Your task to perform on an android device: View the shopping cart on target.com. Search for "beats solo 3" on target.com, select the first entry, add it to the cart, then select checkout. Image 0: 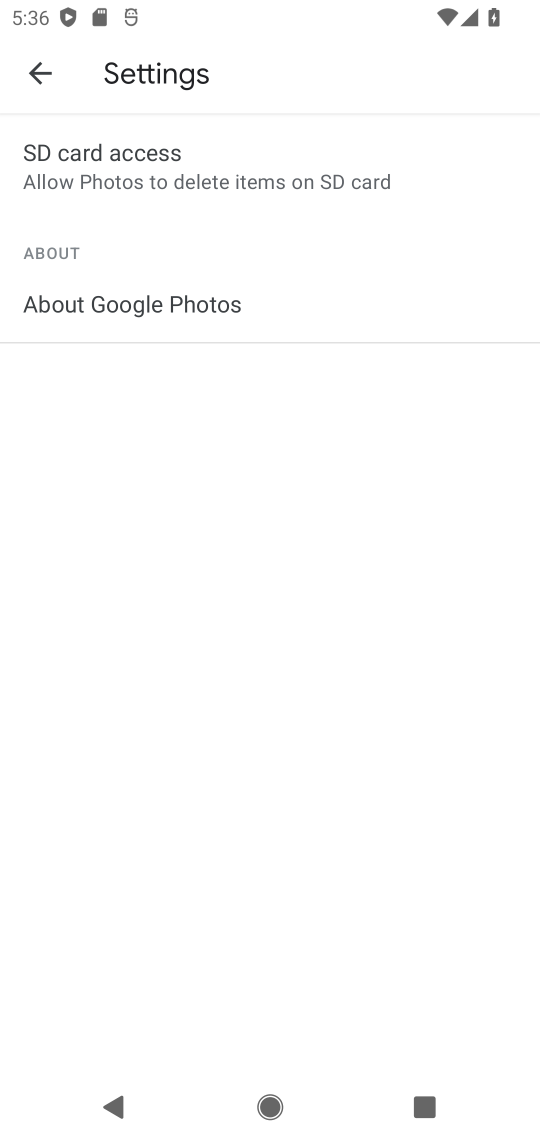
Step 0: press home button
Your task to perform on an android device: View the shopping cart on target.com. Search for "beats solo 3" on target.com, select the first entry, add it to the cart, then select checkout. Image 1: 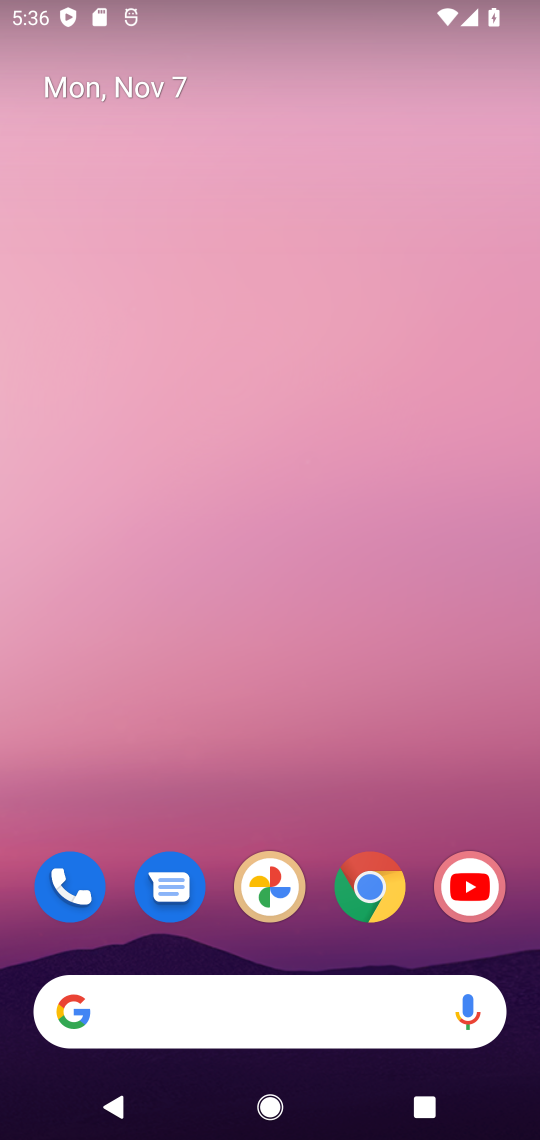
Step 1: click (381, 888)
Your task to perform on an android device: View the shopping cart on target.com. Search for "beats solo 3" on target.com, select the first entry, add it to the cart, then select checkout. Image 2: 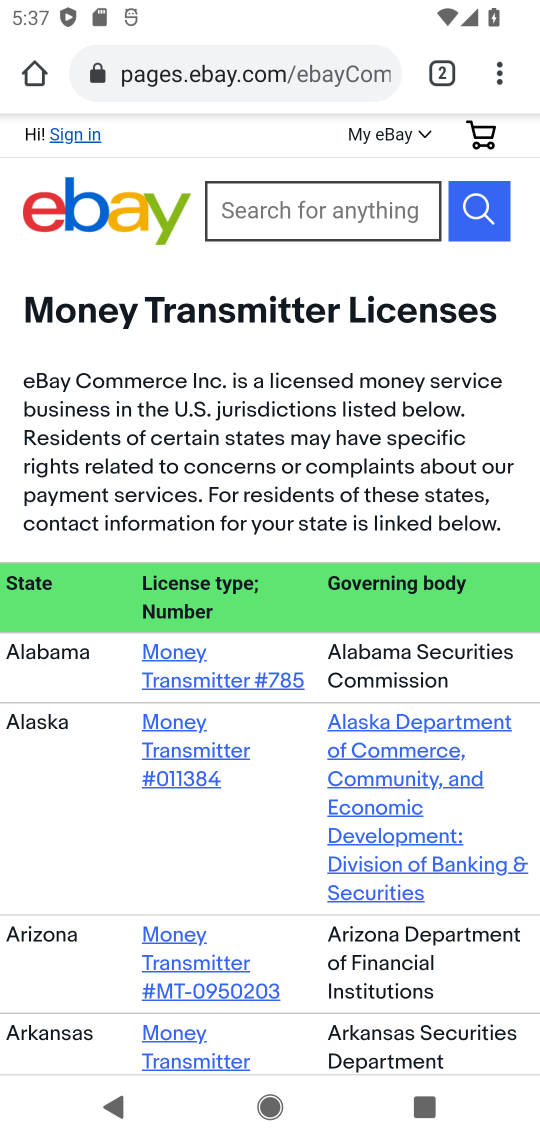
Step 2: click (444, 80)
Your task to perform on an android device: View the shopping cart on target.com. Search for "beats solo 3" on target.com, select the first entry, add it to the cart, then select checkout. Image 3: 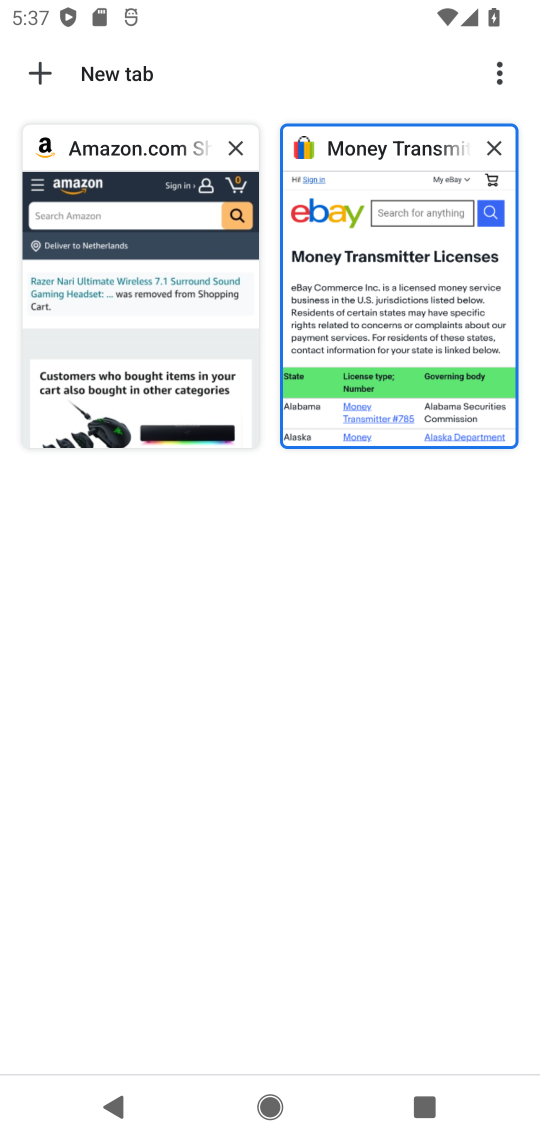
Step 3: click (41, 73)
Your task to perform on an android device: View the shopping cart on target.com. Search for "beats solo 3" on target.com, select the first entry, add it to the cart, then select checkout. Image 4: 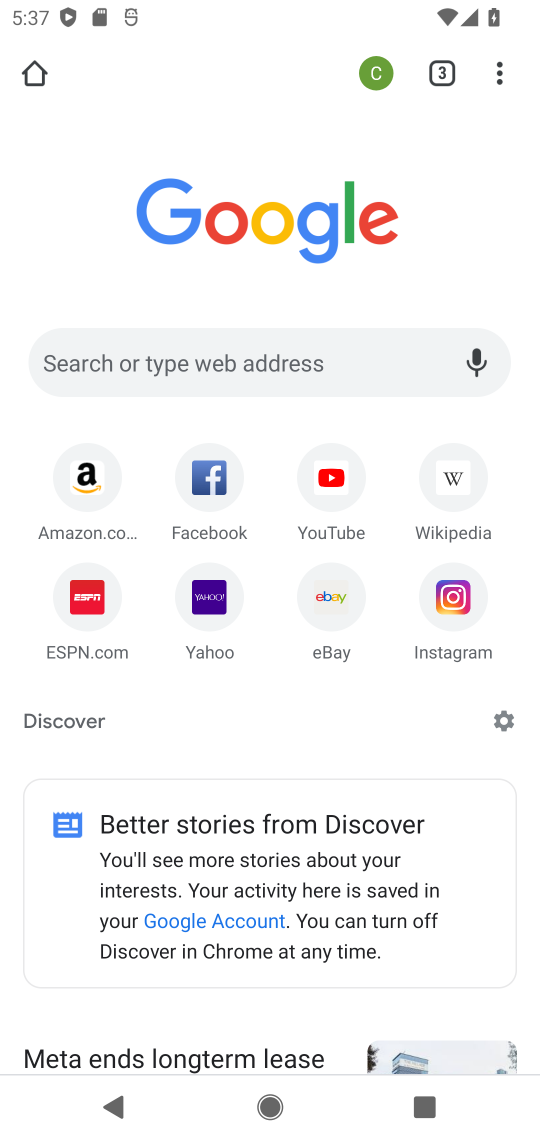
Step 4: click (252, 362)
Your task to perform on an android device: View the shopping cart on target.com. Search for "beats solo 3" on target.com, select the first entry, add it to the cart, then select checkout. Image 5: 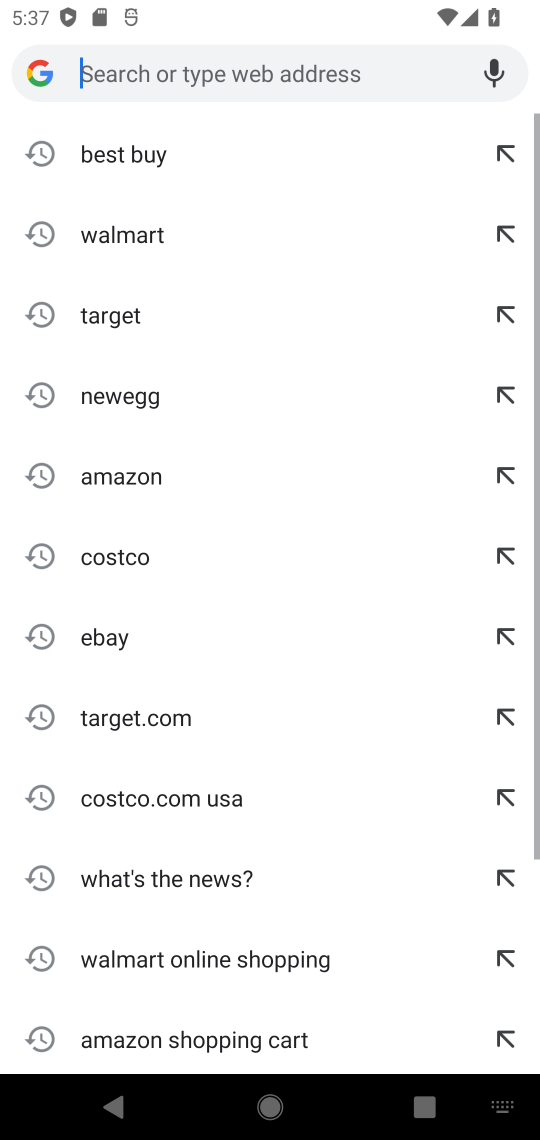
Step 5: type "target"
Your task to perform on an android device: View the shopping cart on target.com. Search for "beats solo 3" on target.com, select the first entry, add it to the cart, then select checkout. Image 6: 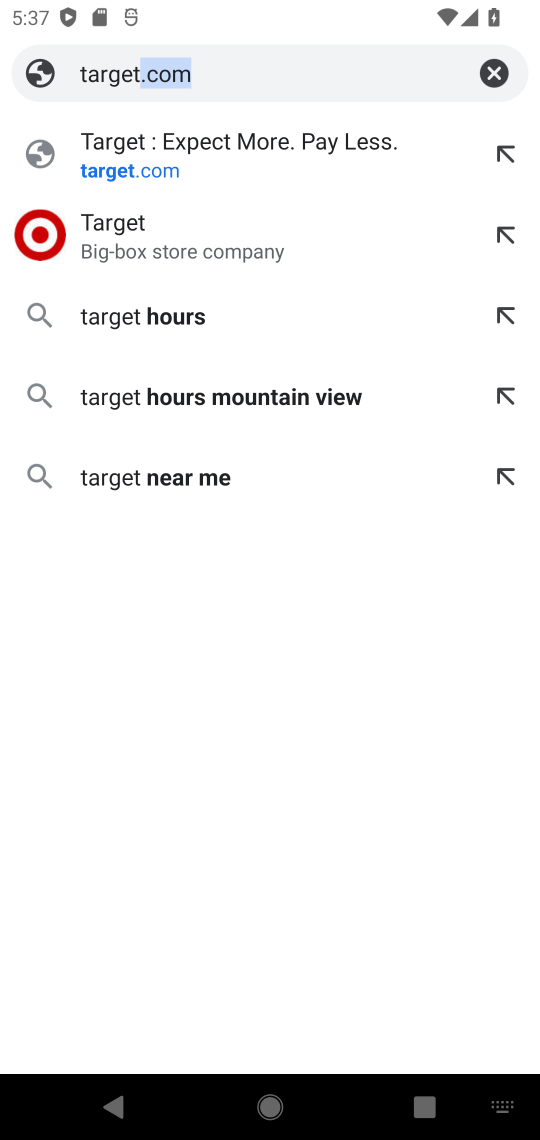
Step 6: click (126, 140)
Your task to perform on an android device: View the shopping cart on target.com. Search for "beats solo 3" on target.com, select the first entry, add it to the cart, then select checkout. Image 7: 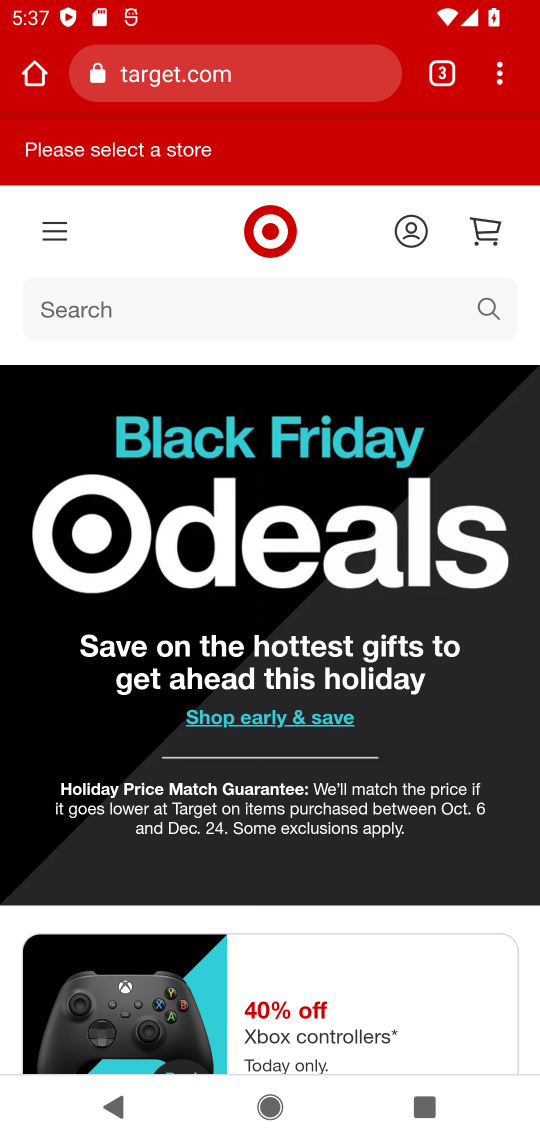
Step 7: click (97, 305)
Your task to perform on an android device: View the shopping cart on target.com. Search for "beats solo 3" on target.com, select the first entry, add it to the cart, then select checkout. Image 8: 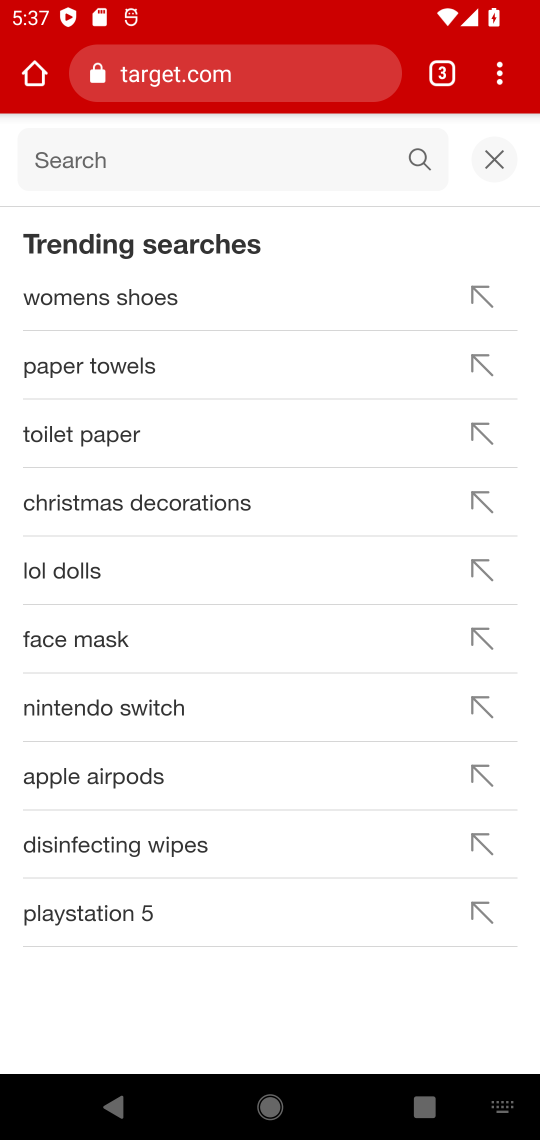
Step 8: type "beats solo 3"
Your task to perform on an android device: View the shopping cart on target.com. Search for "beats solo 3" on target.com, select the first entry, add it to the cart, then select checkout. Image 9: 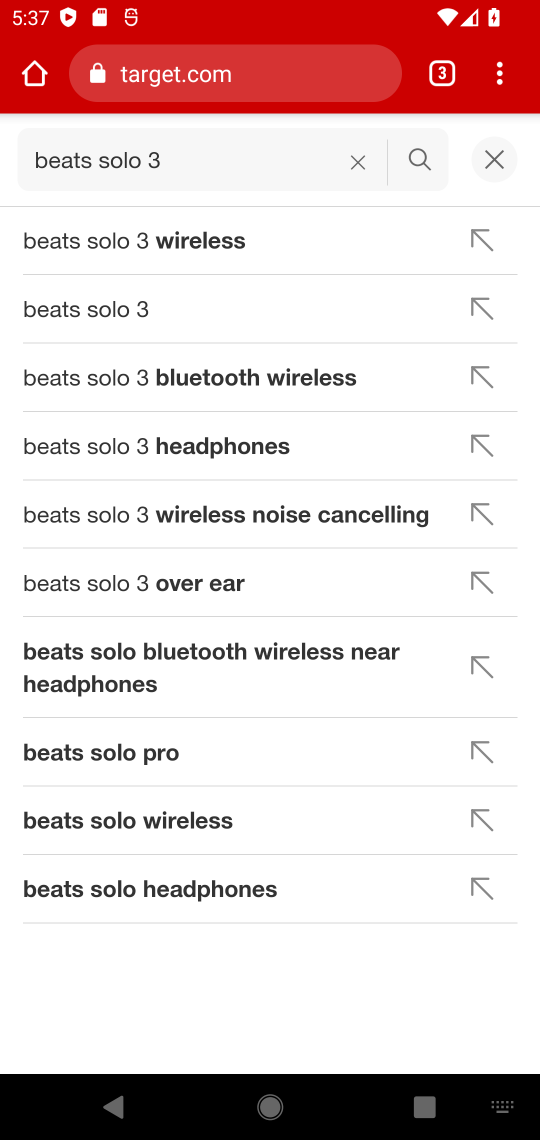
Step 9: click (131, 240)
Your task to perform on an android device: View the shopping cart on target.com. Search for "beats solo 3" on target.com, select the first entry, add it to the cart, then select checkout. Image 10: 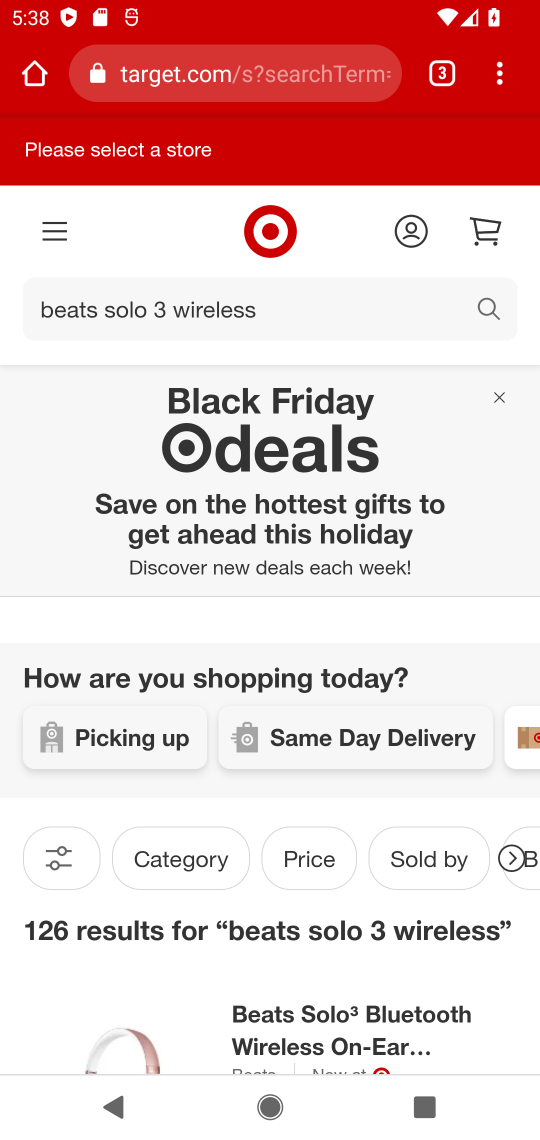
Step 10: click (309, 1050)
Your task to perform on an android device: View the shopping cart on target.com. Search for "beats solo 3" on target.com, select the first entry, add it to the cart, then select checkout. Image 11: 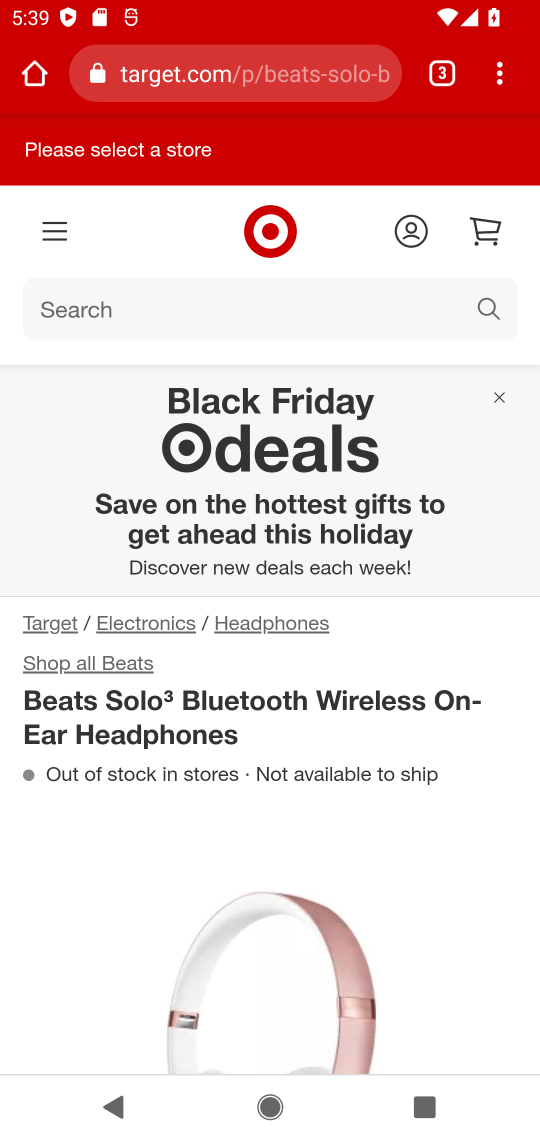
Step 11: drag from (352, 953) to (407, 313)
Your task to perform on an android device: View the shopping cart on target.com. Search for "beats solo 3" on target.com, select the first entry, add it to the cart, then select checkout. Image 12: 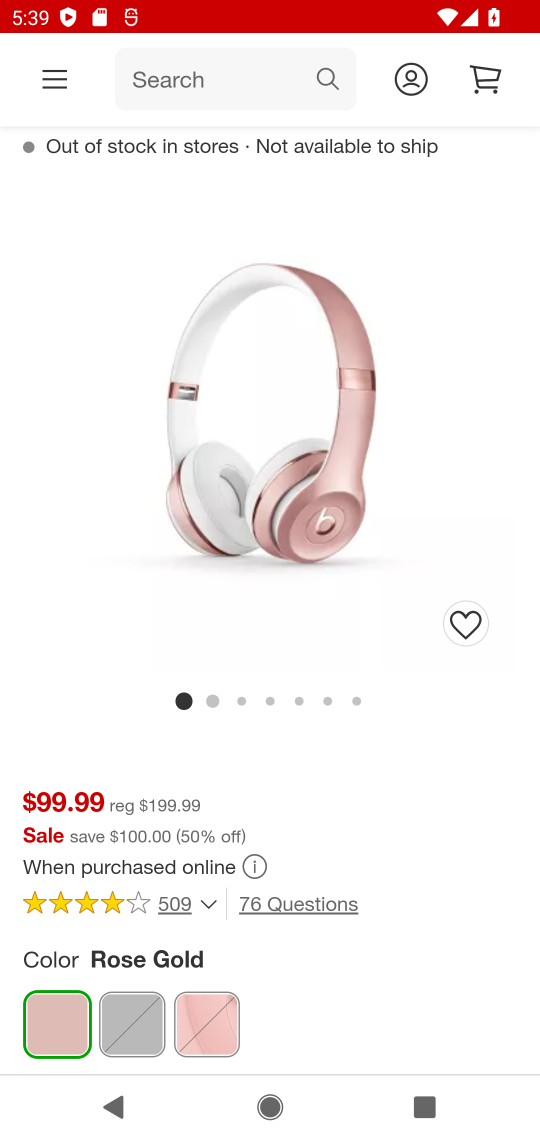
Step 12: drag from (297, 927) to (281, 427)
Your task to perform on an android device: View the shopping cart on target.com. Search for "beats solo 3" on target.com, select the first entry, add it to the cart, then select checkout. Image 13: 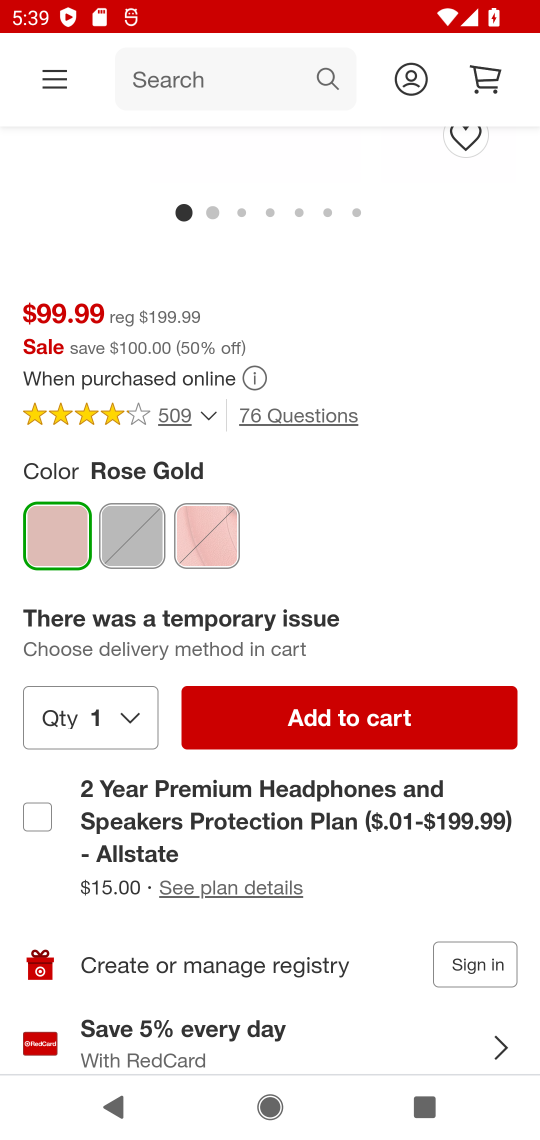
Step 13: click (367, 727)
Your task to perform on an android device: View the shopping cart on target.com. Search for "beats solo 3" on target.com, select the first entry, add it to the cart, then select checkout. Image 14: 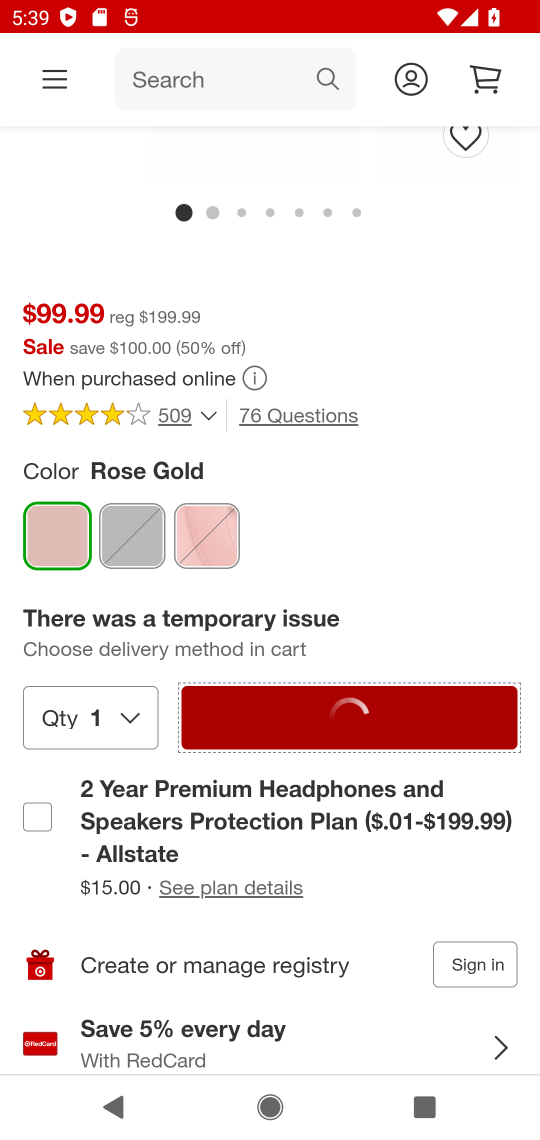
Step 14: task complete